Your task to perform on an android device: Open Youtube and go to "Your channel" Image 0: 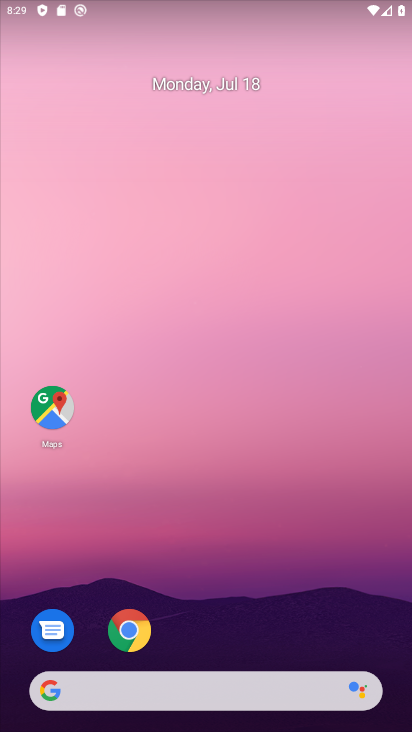
Step 0: drag from (218, 623) to (206, 362)
Your task to perform on an android device: Open Youtube and go to "Your channel" Image 1: 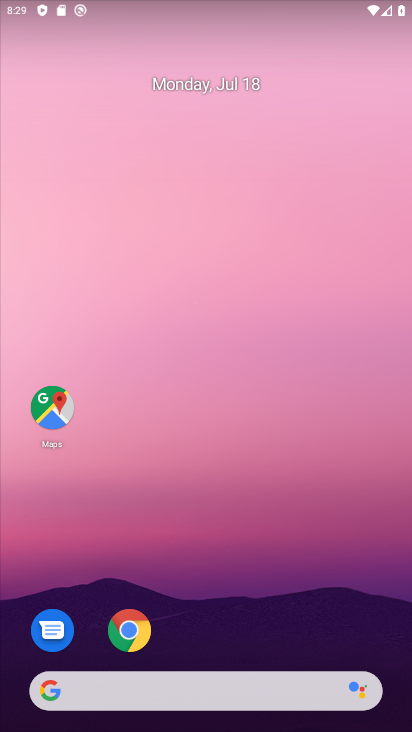
Step 1: drag from (283, 642) to (269, 182)
Your task to perform on an android device: Open Youtube and go to "Your channel" Image 2: 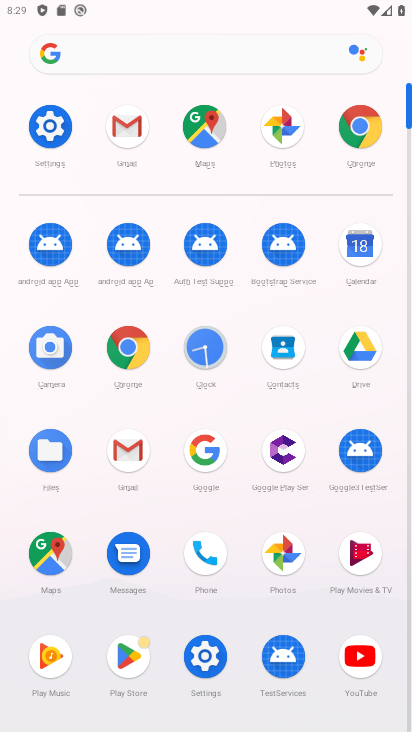
Step 2: click (352, 655)
Your task to perform on an android device: Open Youtube and go to "Your channel" Image 3: 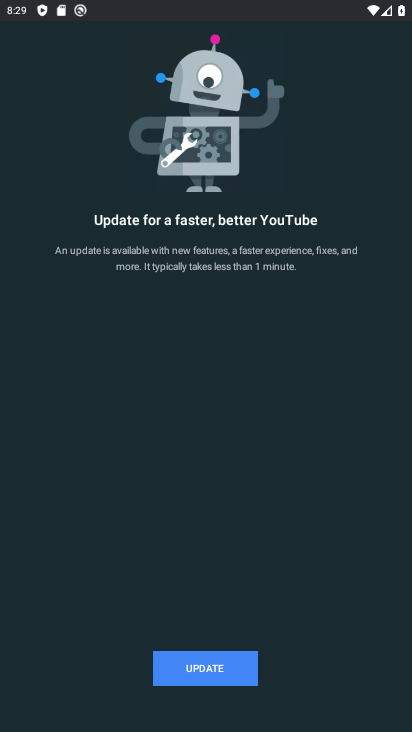
Step 3: task complete